Your task to perform on an android device: Go to sound settings Image 0: 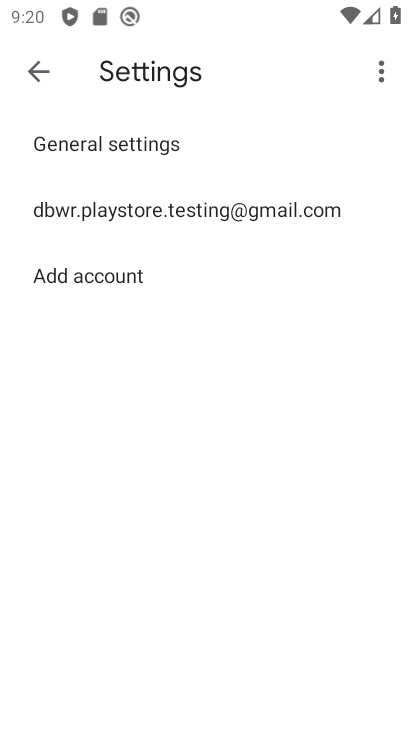
Step 0: press home button
Your task to perform on an android device: Go to sound settings Image 1: 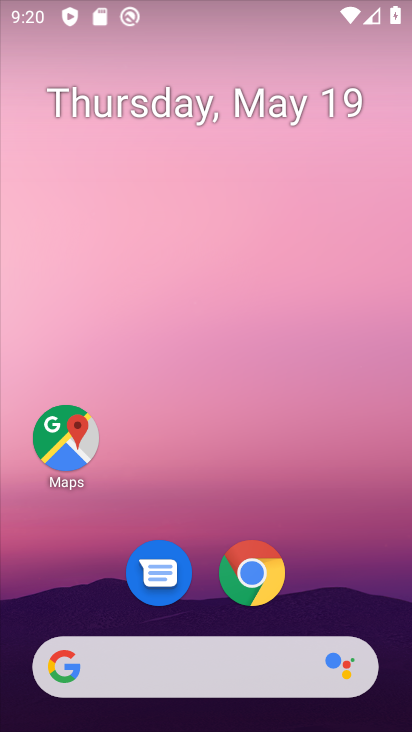
Step 1: drag from (210, 600) to (246, 187)
Your task to perform on an android device: Go to sound settings Image 2: 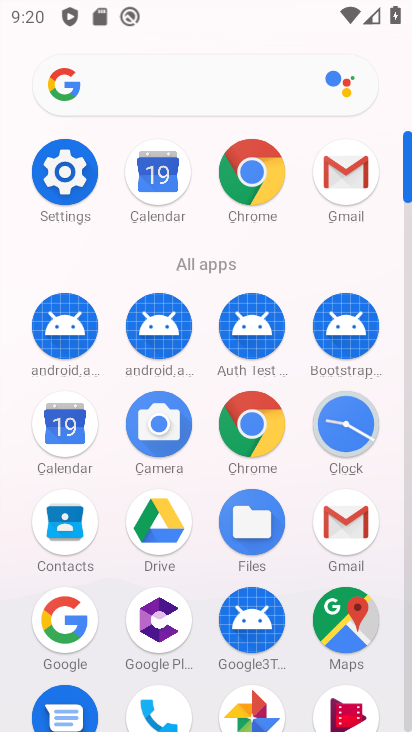
Step 2: click (65, 174)
Your task to perform on an android device: Go to sound settings Image 3: 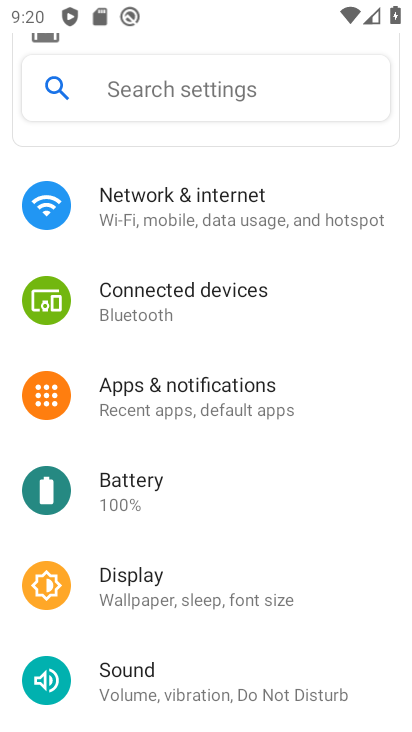
Step 3: click (211, 660)
Your task to perform on an android device: Go to sound settings Image 4: 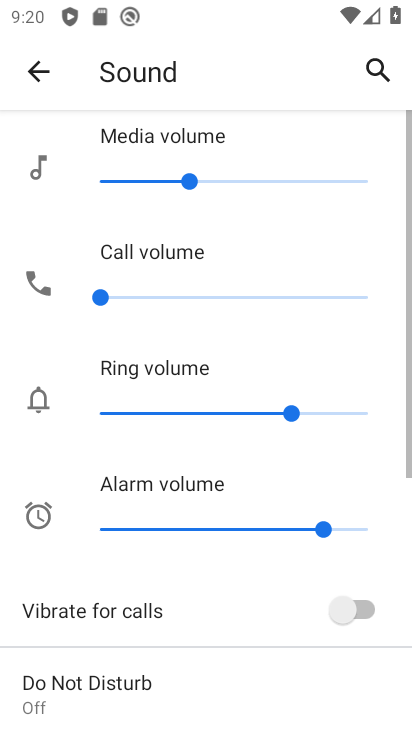
Step 4: task complete